Your task to perform on an android device: Toggle the flashlight Image 0: 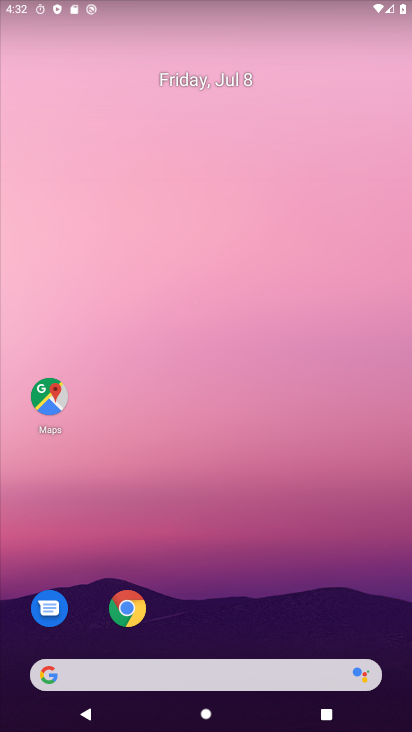
Step 0: press home button
Your task to perform on an android device: Toggle the flashlight Image 1: 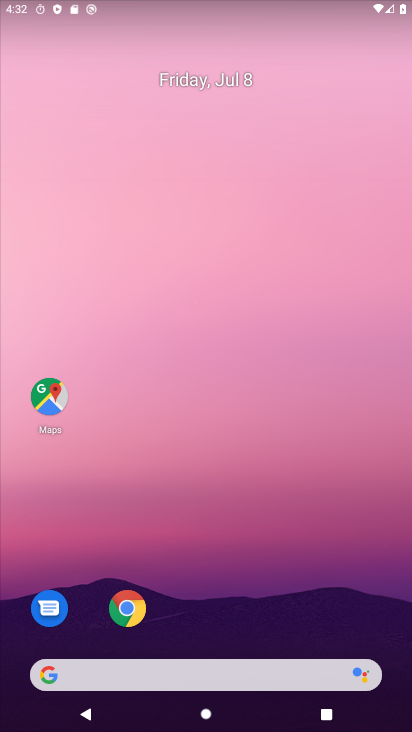
Step 1: task complete